Your task to perform on an android device: Open Google Image 0: 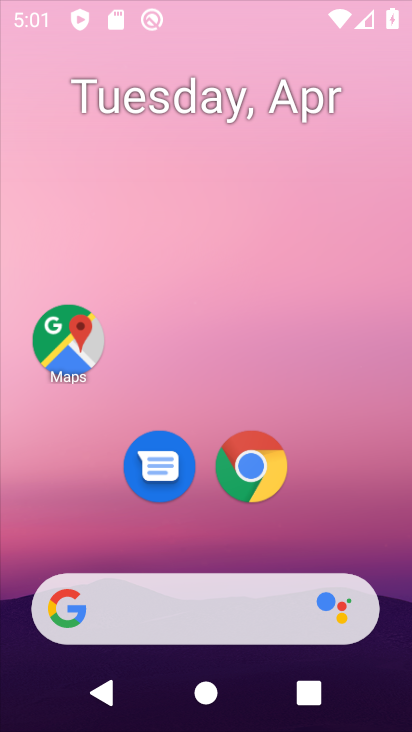
Step 0: click (83, 366)
Your task to perform on an android device: Open Google Image 1: 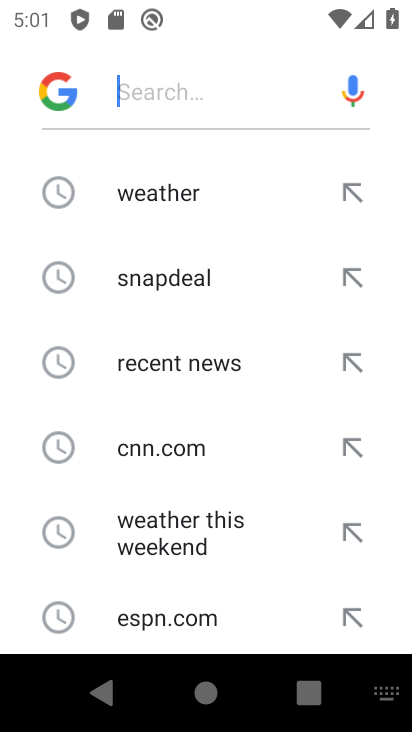
Step 1: press home button
Your task to perform on an android device: Open Google Image 2: 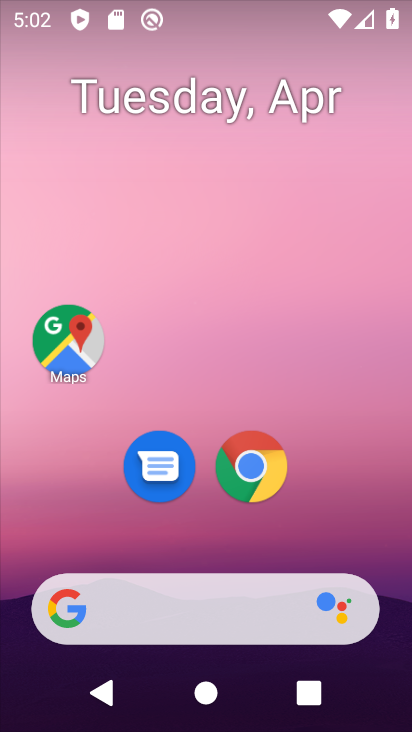
Step 2: click (70, 612)
Your task to perform on an android device: Open Google Image 3: 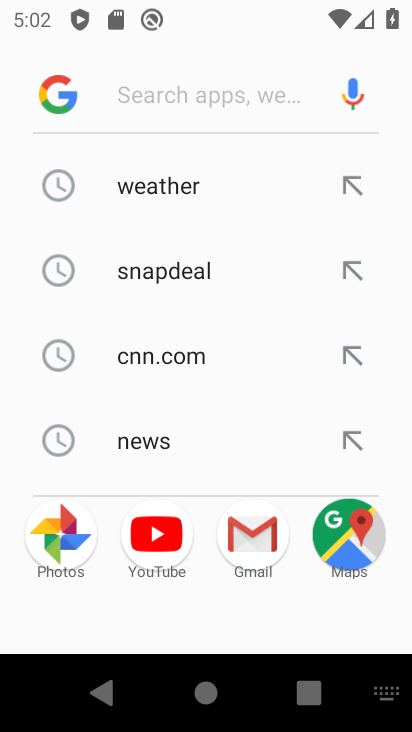
Step 3: click (56, 105)
Your task to perform on an android device: Open Google Image 4: 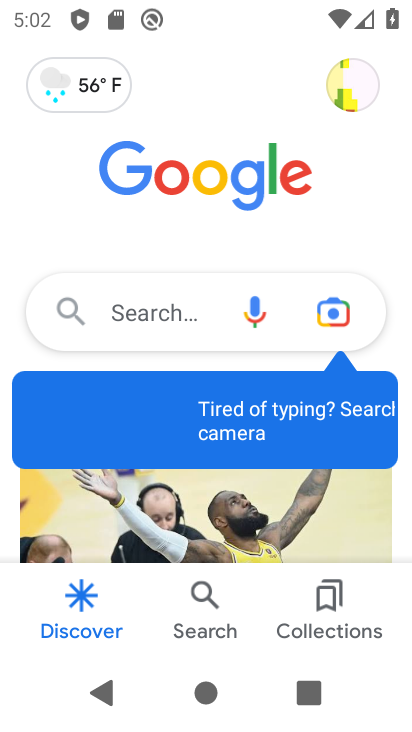
Step 4: task complete